Your task to perform on an android device: Set the phone to "Do not disturb". Image 0: 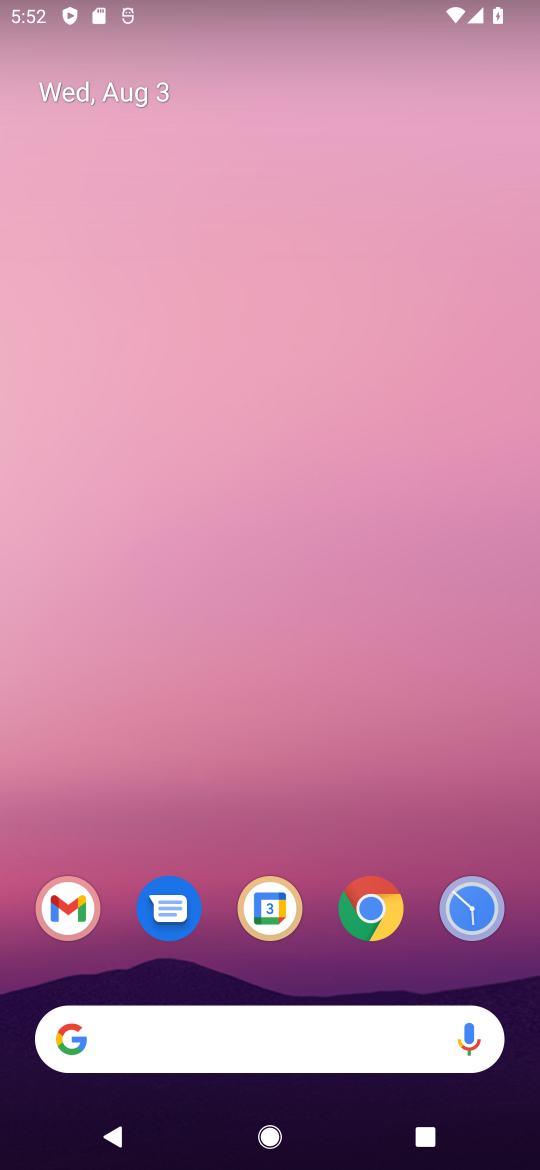
Step 0: drag from (322, 841) to (369, 168)
Your task to perform on an android device: Set the phone to "Do not disturb". Image 1: 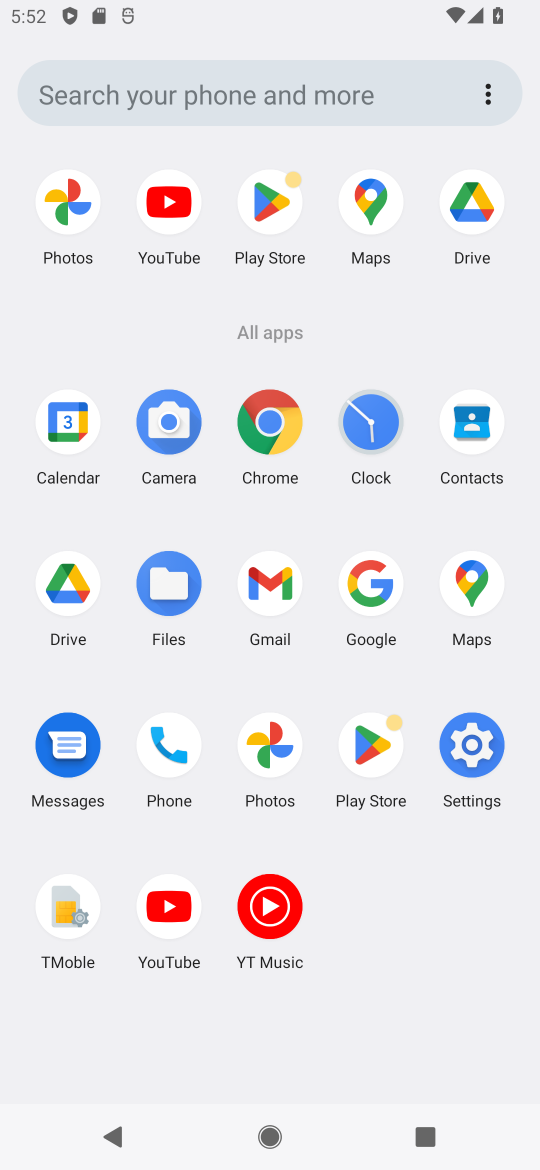
Step 1: click (475, 753)
Your task to perform on an android device: Set the phone to "Do not disturb". Image 2: 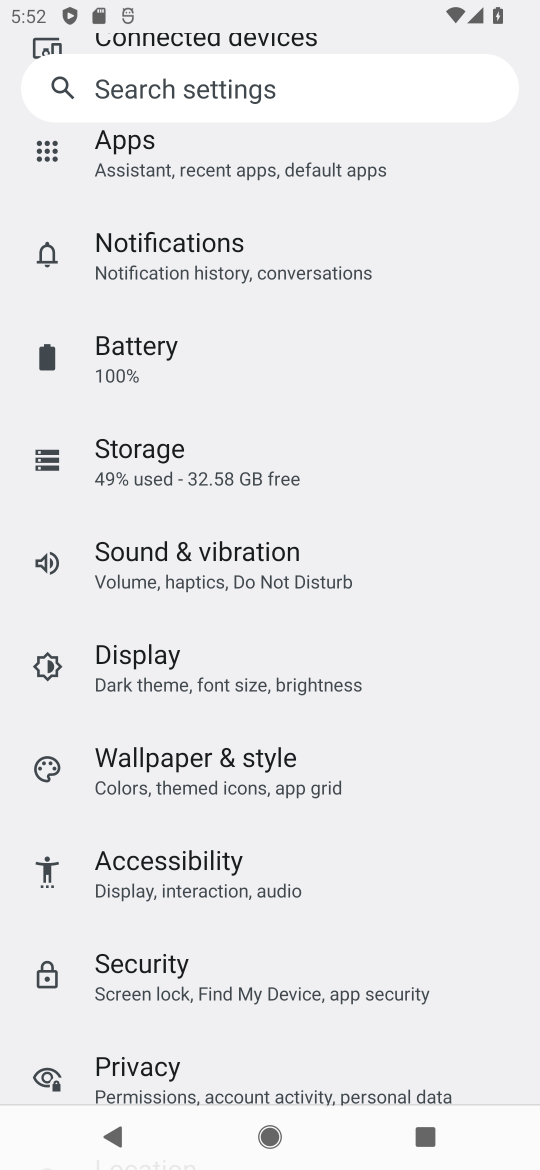
Step 2: drag from (183, 392) to (189, 705)
Your task to perform on an android device: Set the phone to "Do not disturb". Image 3: 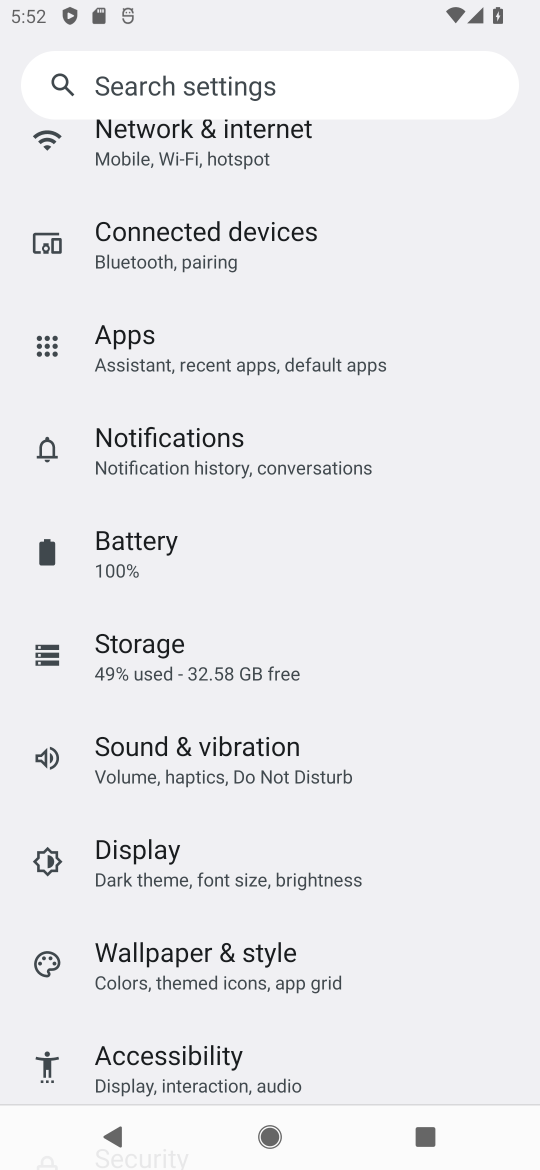
Step 3: click (170, 765)
Your task to perform on an android device: Set the phone to "Do not disturb". Image 4: 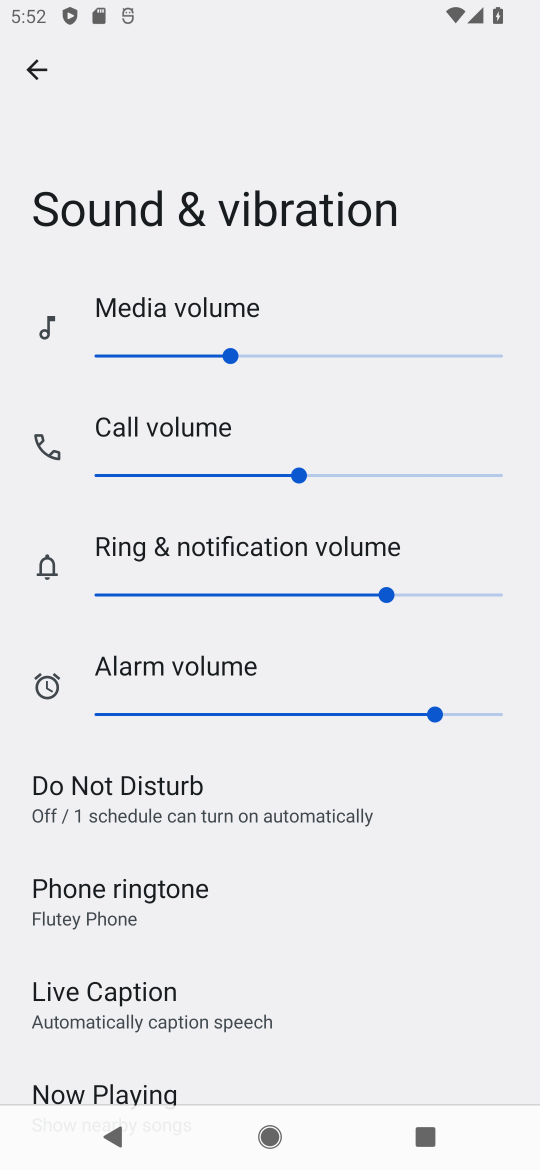
Step 4: drag from (106, 862) to (139, 573)
Your task to perform on an android device: Set the phone to "Do not disturb". Image 5: 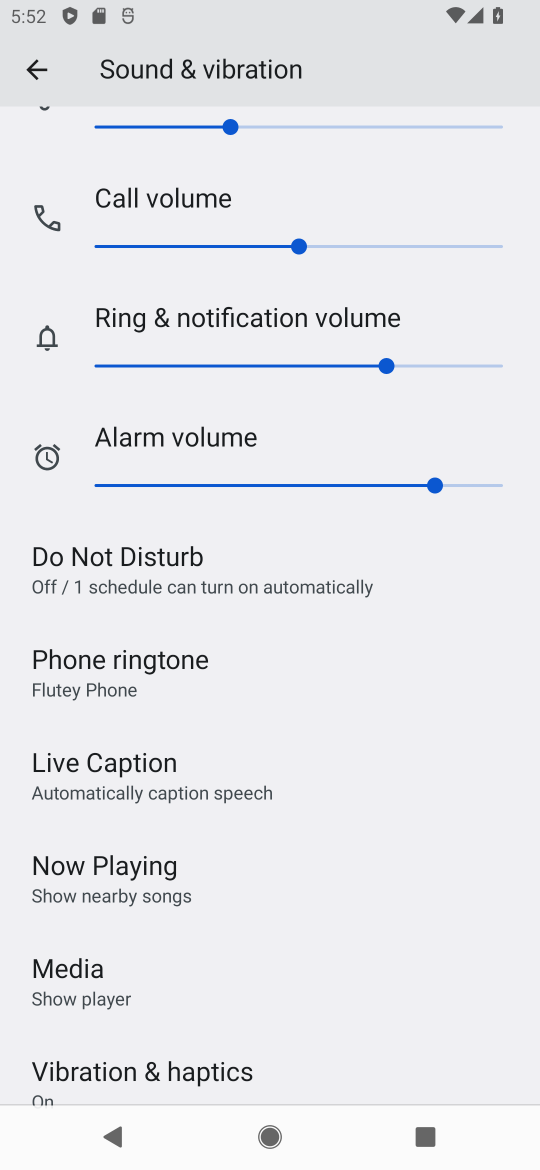
Step 5: click (110, 599)
Your task to perform on an android device: Set the phone to "Do not disturb". Image 6: 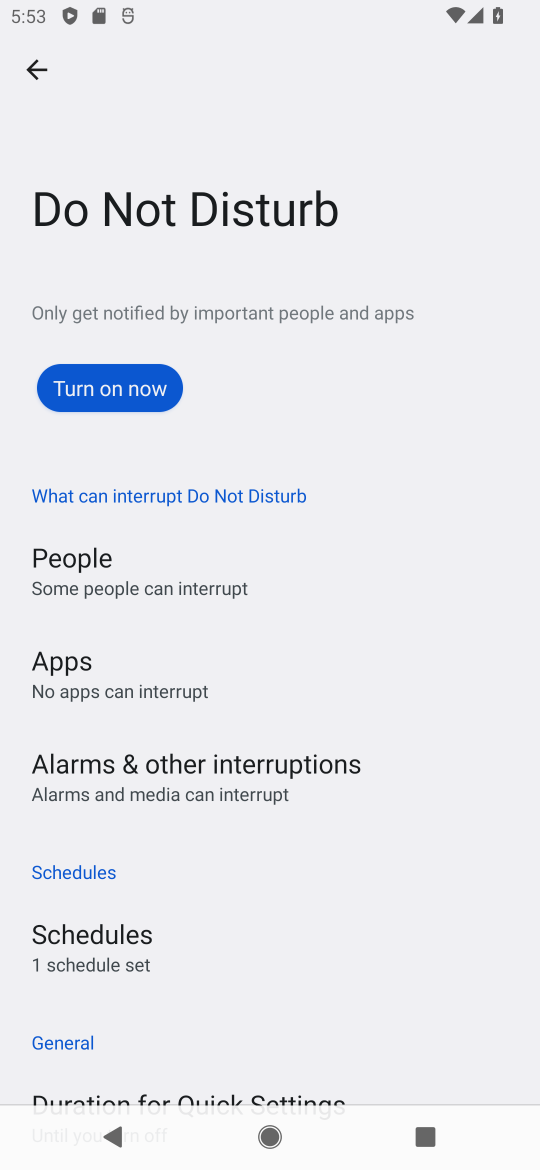
Step 6: click (122, 395)
Your task to perform on an android device: Set the phone to "Do not disturb". Image 7: 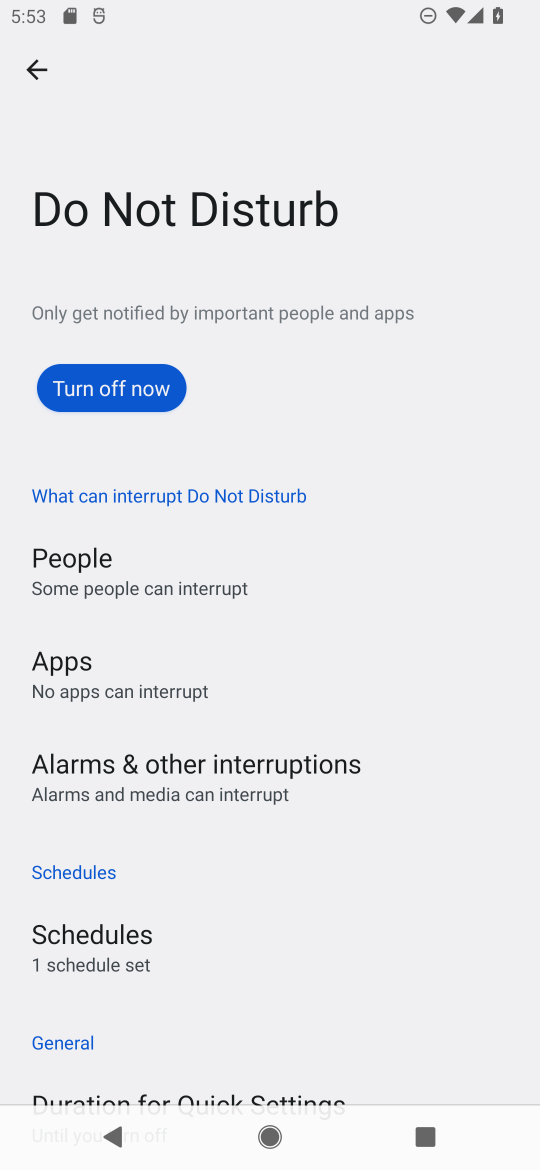
Step 7: task complete